Your task to perform on an android device: set an alarm Image 0: 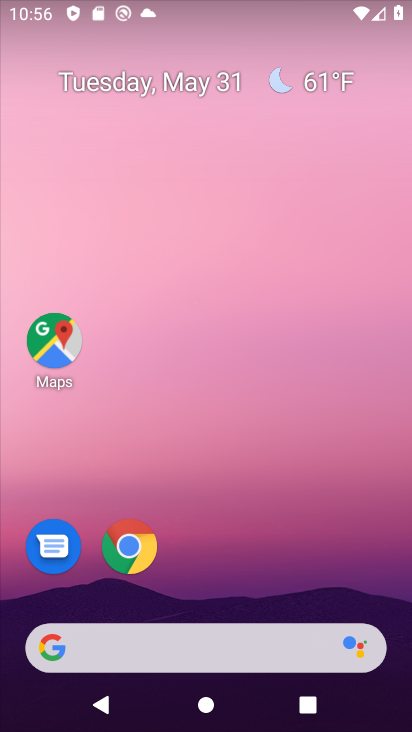
Step 0: drag from (221, 618) to (348, 633)
Your task to perform on an android device: set an alarm Image 1: 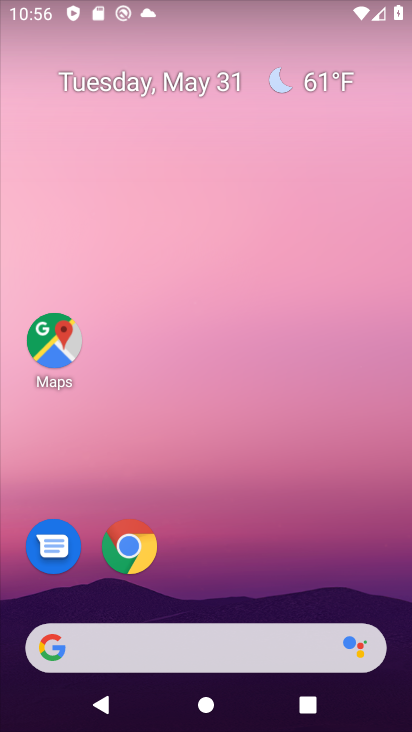
Step 1: click (213, 366)
Your task to perform on an android device: set an alarm Image 2: 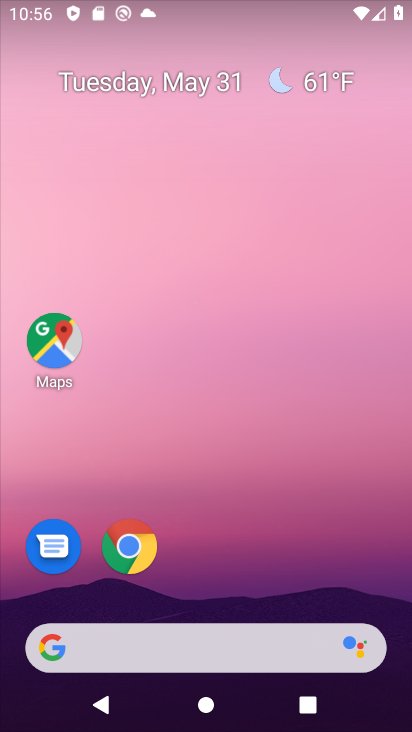
Step 2: drag from (229, 606) to (275, 6)
Your task to perform on an android device: set an alarm Image 3: 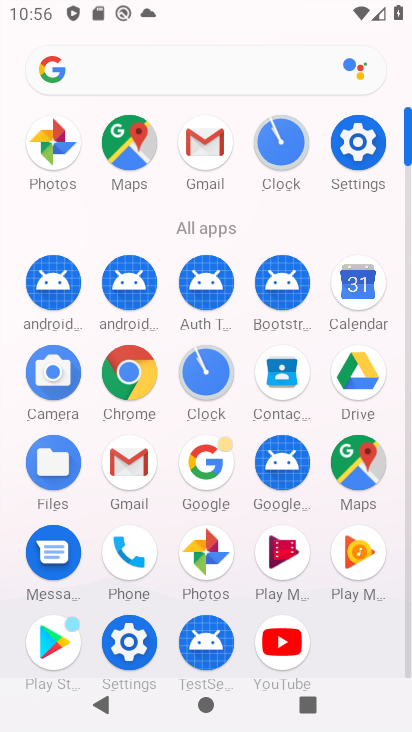
Step 3: click (200, 370)
Your task to perform on an android device: set an alarm Image 4: 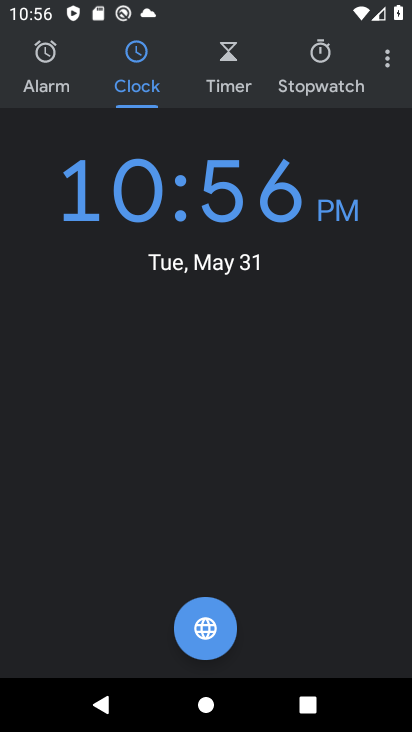
Step 4: click (43, 66)
Your task to perform on an android device: set an alarm Image 5: 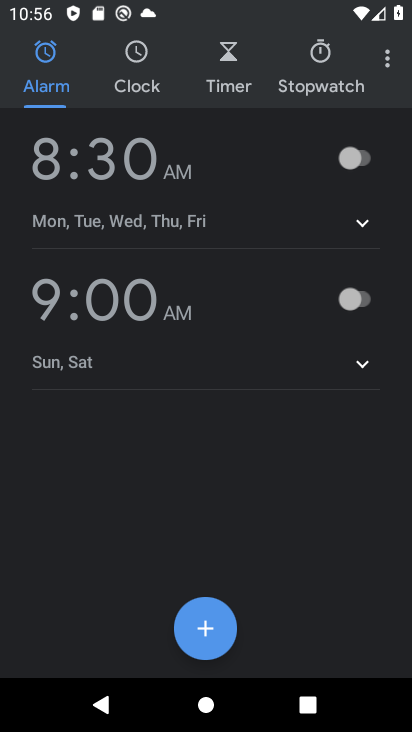
Step 5: task complete